Your task to perform on an android device: Search for sushi restaurants on Maps Image 0: 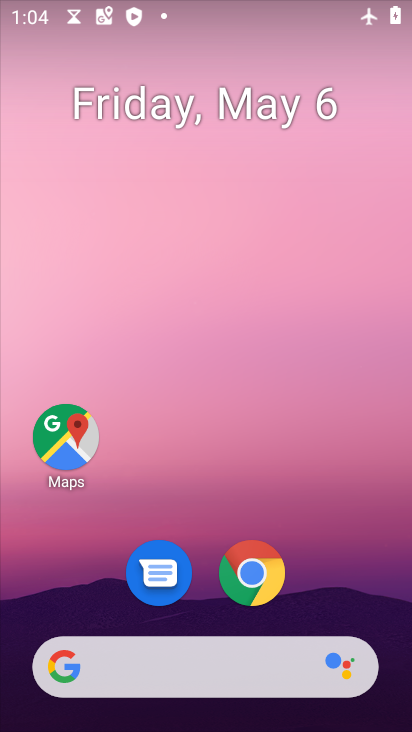
Step 0: drag from (335, 582) to (346, 280)
Your task to perform on an android device: Search for sushi restaurants on Maps Image 1: 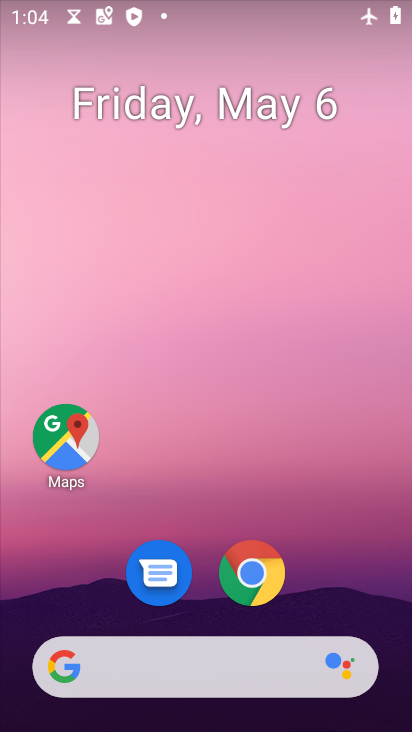
Step 1: drag from (331, 599) to (389, 224)
Your task to perform on an android device: Search for sushi restaurants on Maps Image 2: 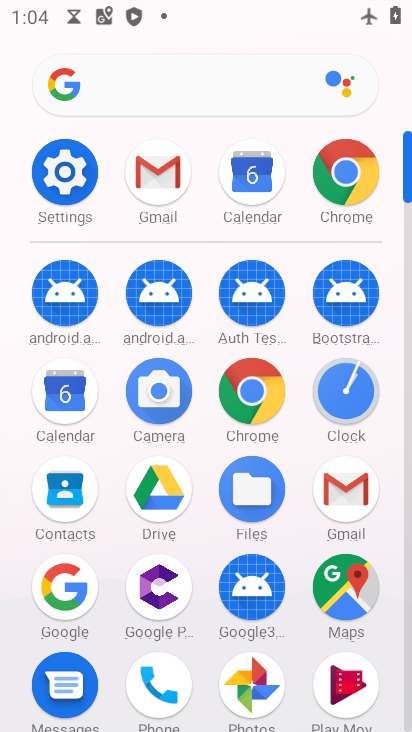
Step 2: click (339, 598)
Your task to perform on an android device: Search for sushi restaurants on Maps Image 3: 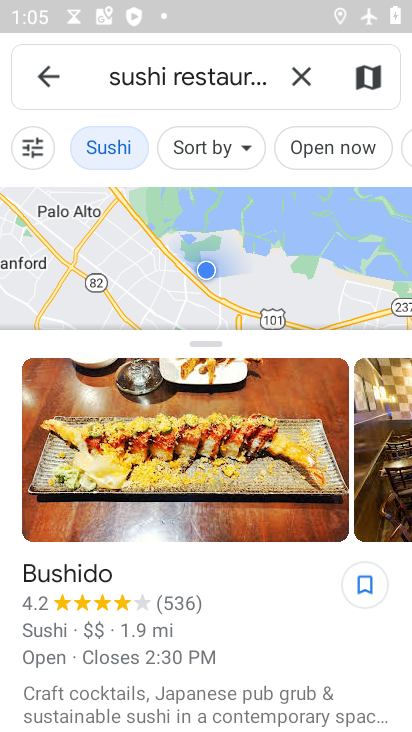
Step 3: task complete